Your task to perform on an android device: Is it going to rain today? Image 0: 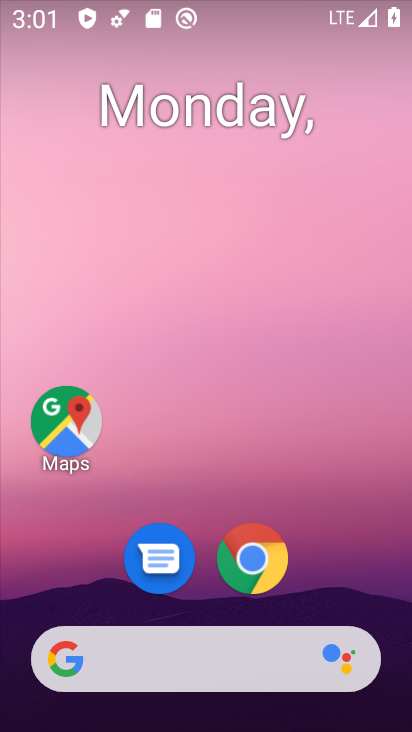
Step 0: click (119, 655)
Your task to perform on an android device: Is it going to rain today? Image 1: 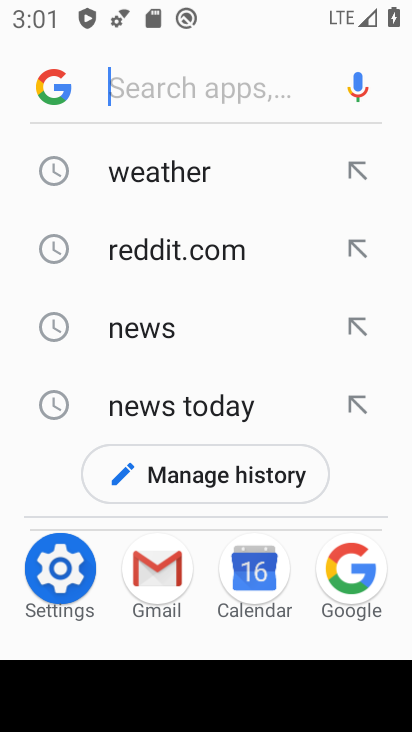
Step 1: click (150, 180)
Your task to perform on an android device: Is it going to rain today? Image 2: 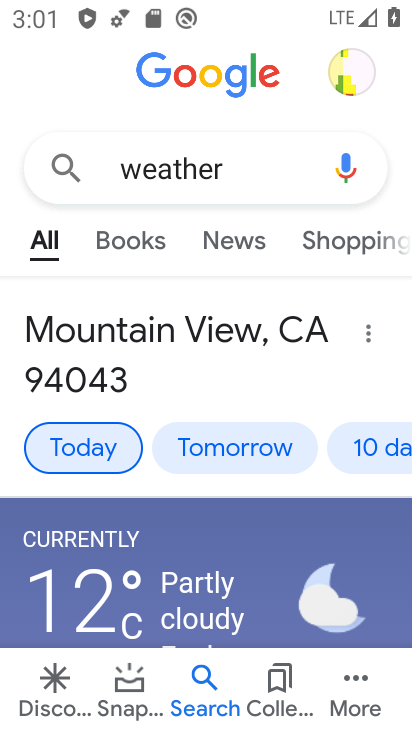
Step 2: task complete